Your task to perform on an android device: Show me recent news Image 0: 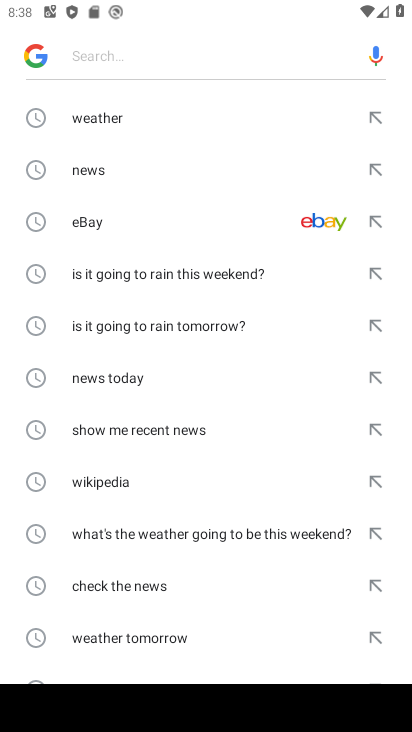
Step 0: press home button
Your task to perform on an android device: Show me recent news Image 1: 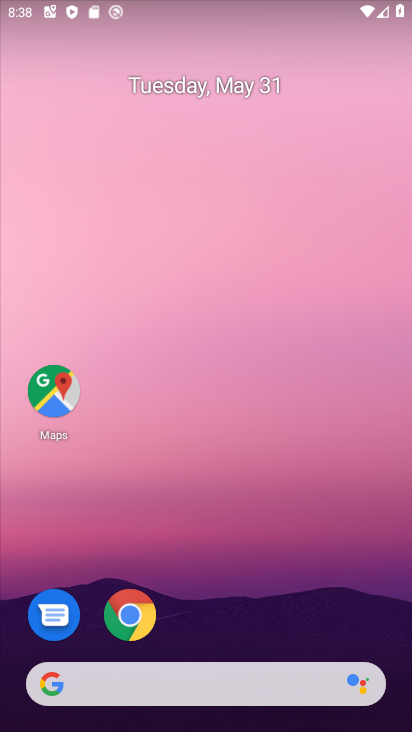
Step 1: drag from (19, 326) to (407, 324)
Your task to perform on an android device: Show me recent news Image 2: 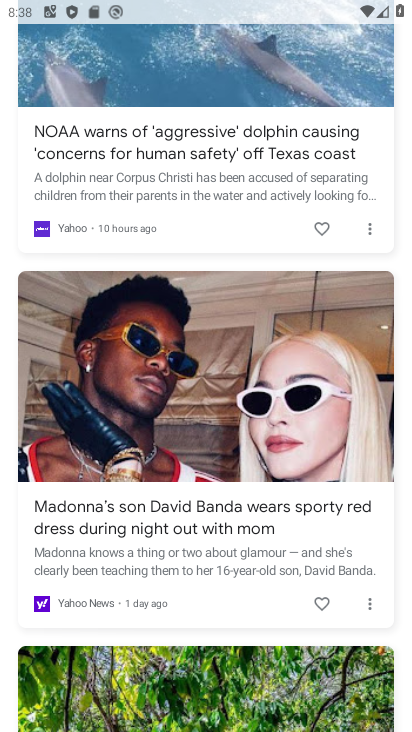
Step 2: drag from (138, 637) to (175, 439)
Your task to perform on an android device: Show me recent news Image 3: 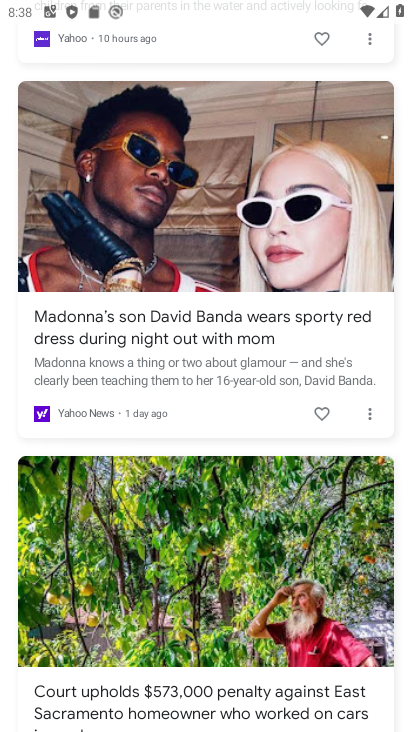
Step 3: drag from (227, 638) to (187, 317)
Your task to perform on an android device: Show me recent news Image 4: 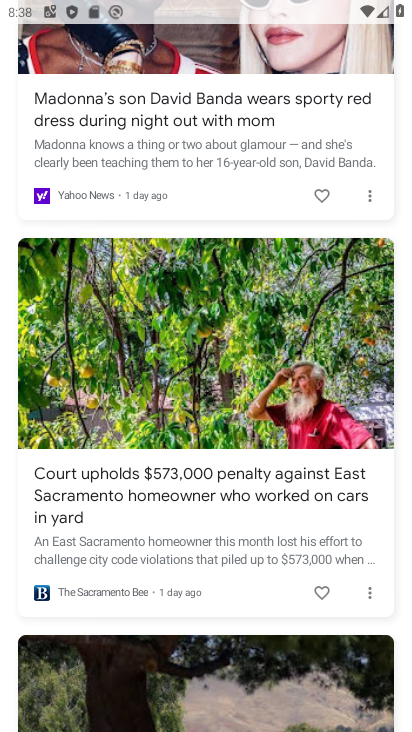
Step 4: drag from (256, 622) to (244, 552)
Your task to perform on an android device: Show me recent news Image 5: 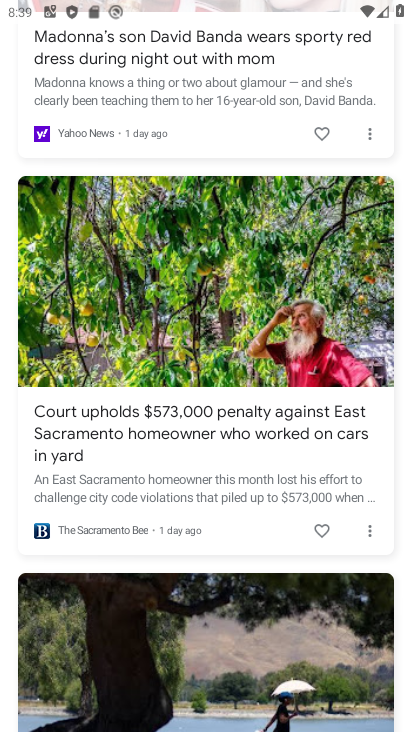
Step 5: drag from (213, 603) to (189, 465)
Your task to perform on an android device: Show me recent news Image 6: 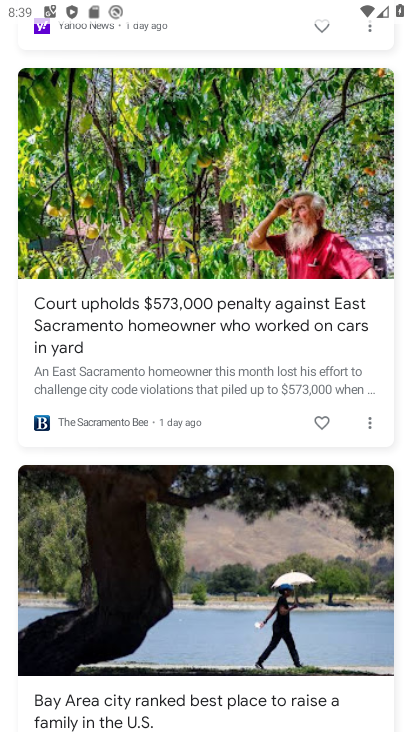
Step 6: drag from (178, 668) to (170, 365)
Your task to perform on an android device: Show me recent news Image 7: 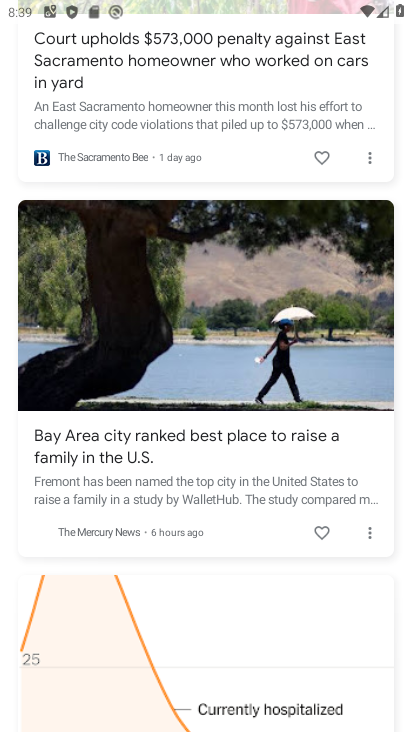
Step 7: drag from (182, 446) to (173, 199)
Your task to perform on an android device: Show me recent news Image 8: 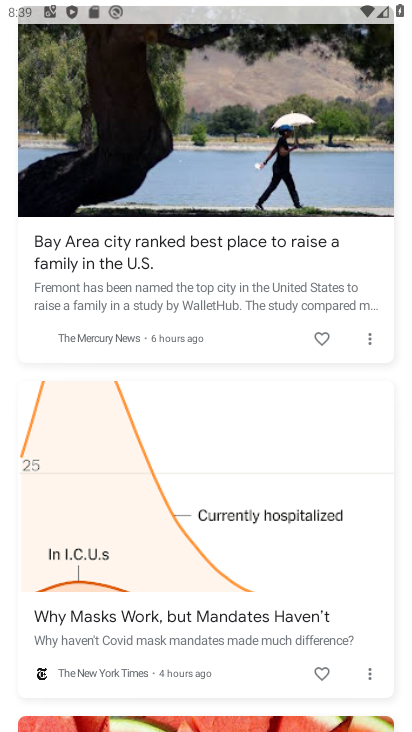
Step 8: drag from (233, 605) to (206, 302)
Your task to perform on an android device: Show me recent news Image 9: 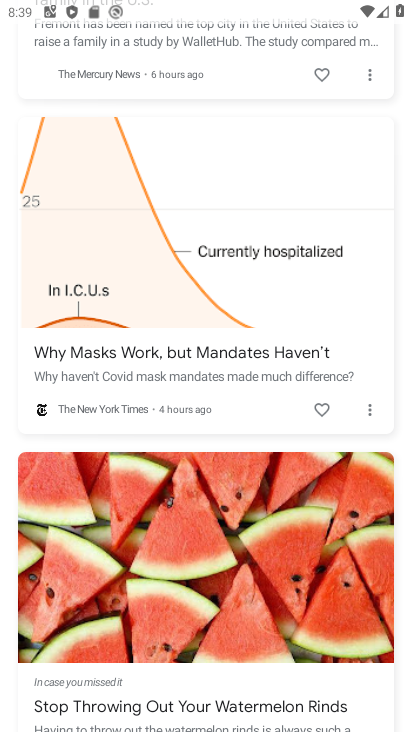
Step 9: drag from (132, 428) to (128, 309)
Your task to perform on an android device: Show me recent news Image 10: 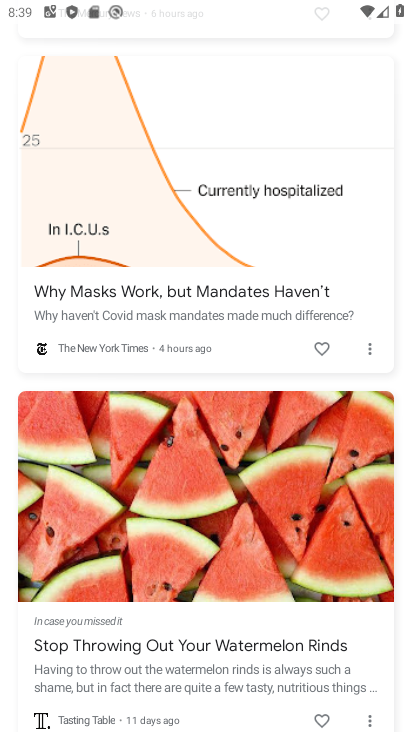
Step 10: drag from (179, 519) to (182, 234)
Your task to perform on an android device: Show me recent news Image 11: 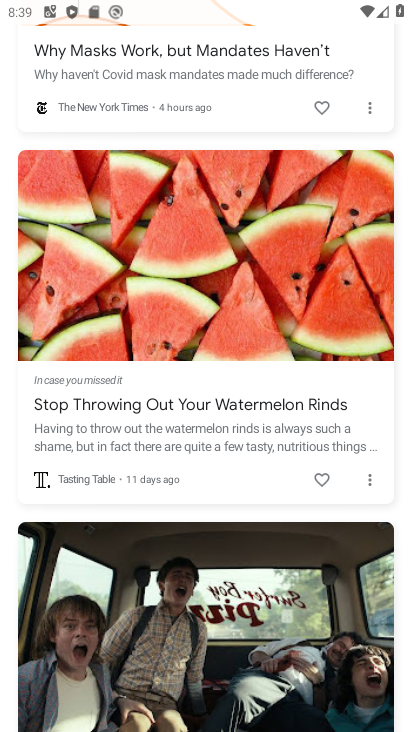
Step 11: click (228, 505)
Your task to perform on an android device: Show me recent news Image 12: 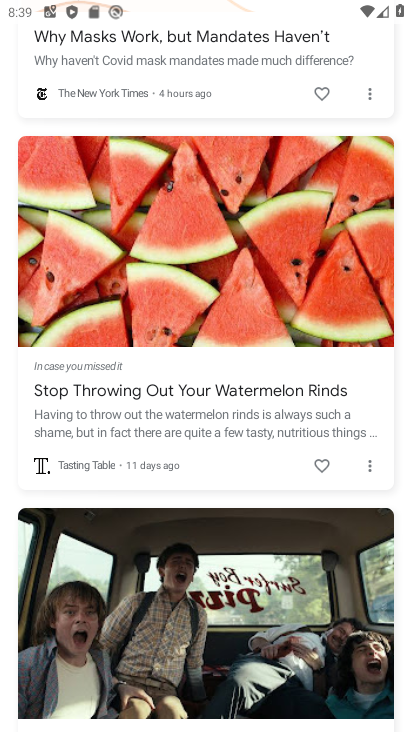
Step 12: drag from (250, 622) to (231, 241)
Your task to perform on an android device: Show me recent news Image 13: 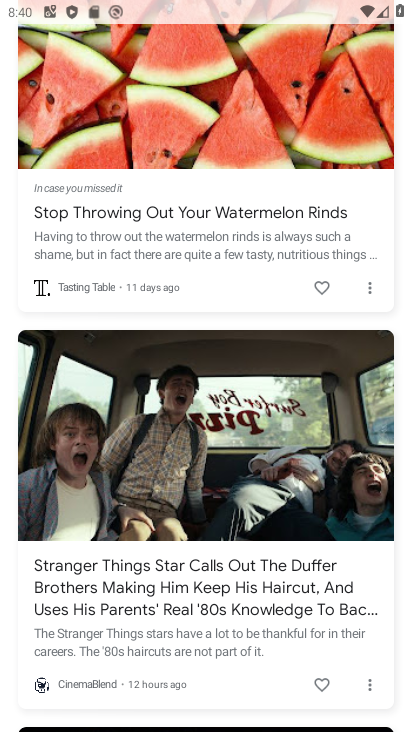
Step 13: drag from (159, 632) to (164, 516)
Your task to perform on an android device: Show me recent news Image 14: 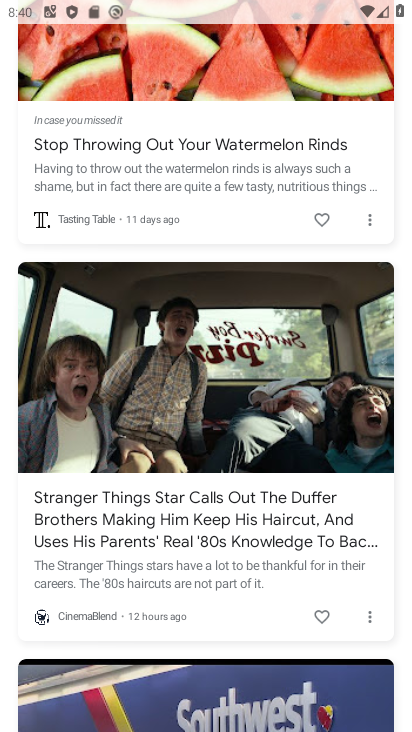
Step 14: click (164, 516)
Your task to perform on an android device: Show me recent news Image 15: 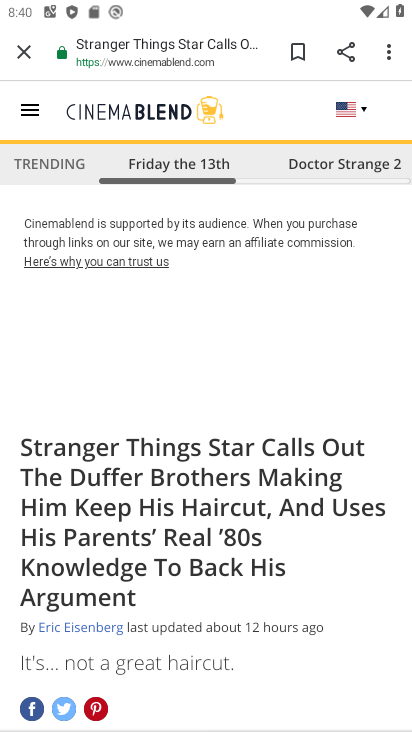
Step 15: task complete